Your task to perform on an android device: check the backup settings in the google photos Image 0: 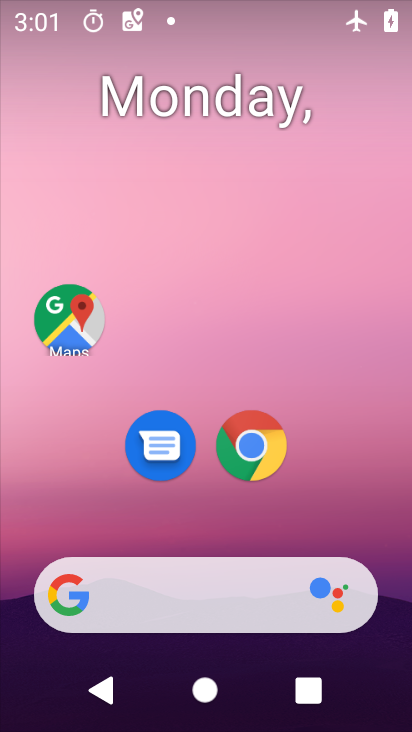
Step 0: drag from (199, 599) to (180, 119)
Your task to perform on an android device: check the backup settings in the google photos Image 1: 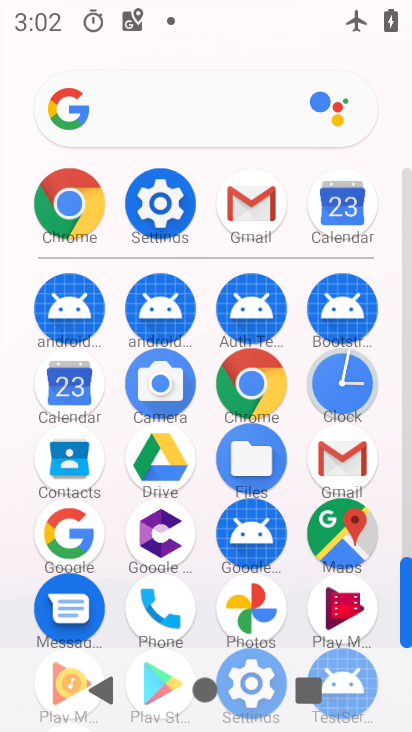
Step 1: click (242, 592)
Your task to perform on an android device: check the backup settings in the google photos Image 2: 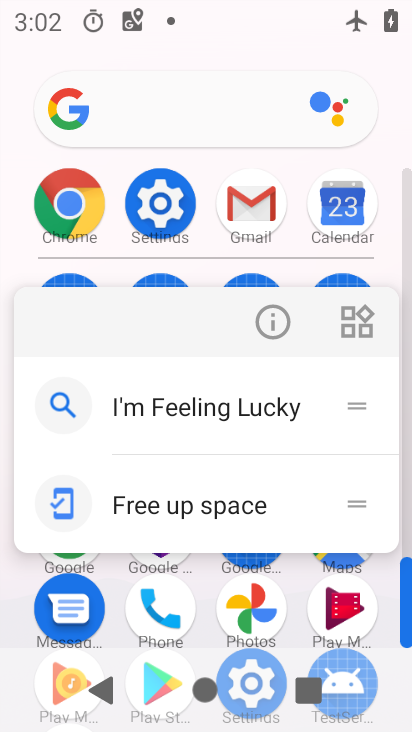
Step 2: click (249, 593)
Your task to perform on an android device: check the backup settings in the google photos Image 3: 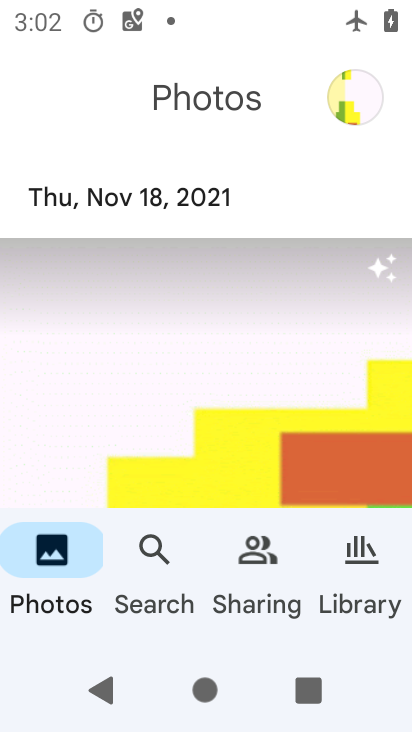
Step 3: click (357, 114)
Your task to perform on an android device: check the backup settings in the google photos Image 4: 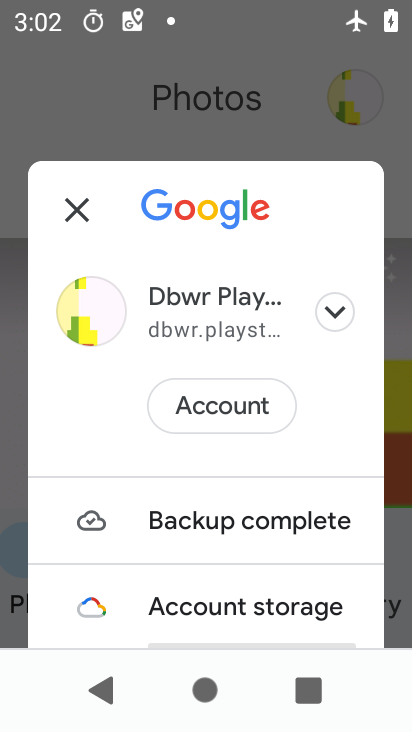
Step 4: drag from (261, 496) to (258, 128)
Your task to perform on an android device: check the backup settings in the google photos Image 5: 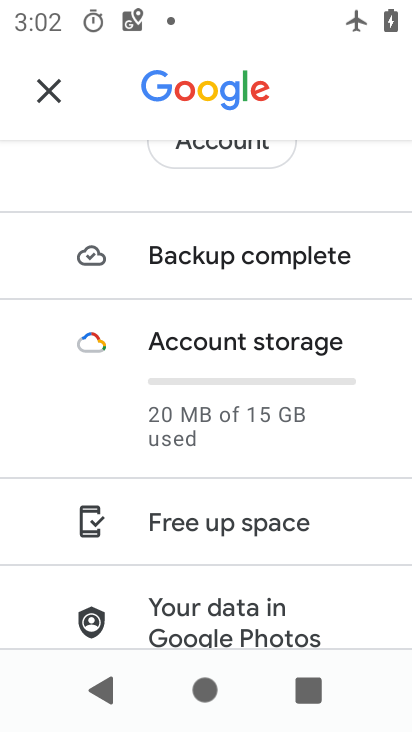
Step 5: drag from (277, 567) to (295, 194)
Your task to perform on an android device: check the backup settings in the google photos Image 6: 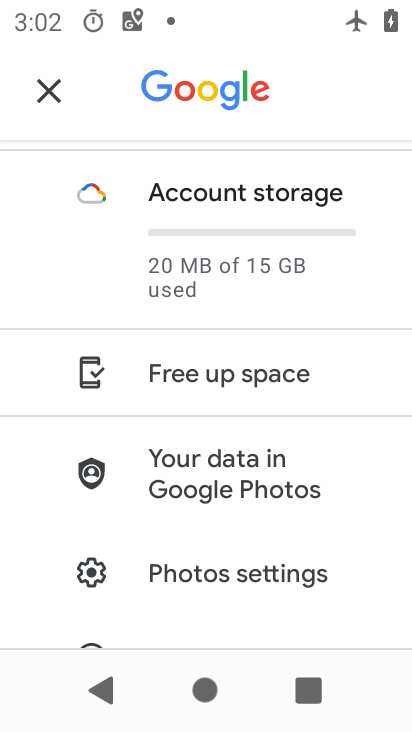
Step 6: click (296, 585)
Your task to perform on an android device: check the backup settings in the google photos Image 7: 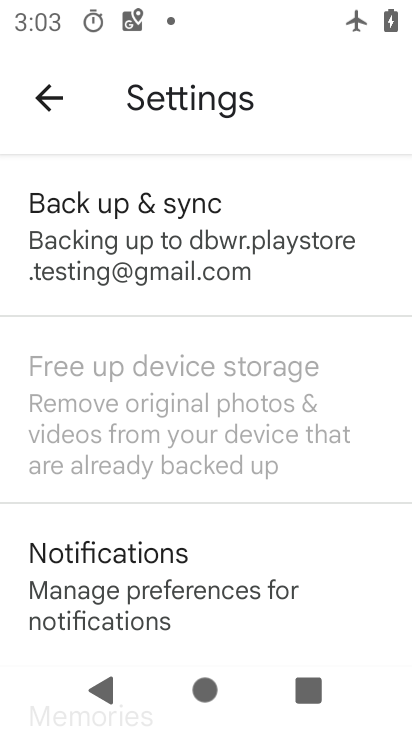
Step 7: click (215, 252)
Your task to perform on an android device: check the backup settings in the google photos Image 8: 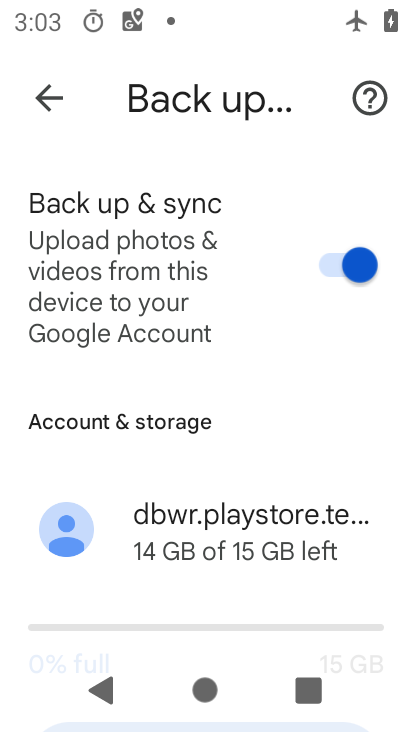
Step 8: task complete